Your task to perform on an android device: delete the emails in spam in the gmail app Image 0: 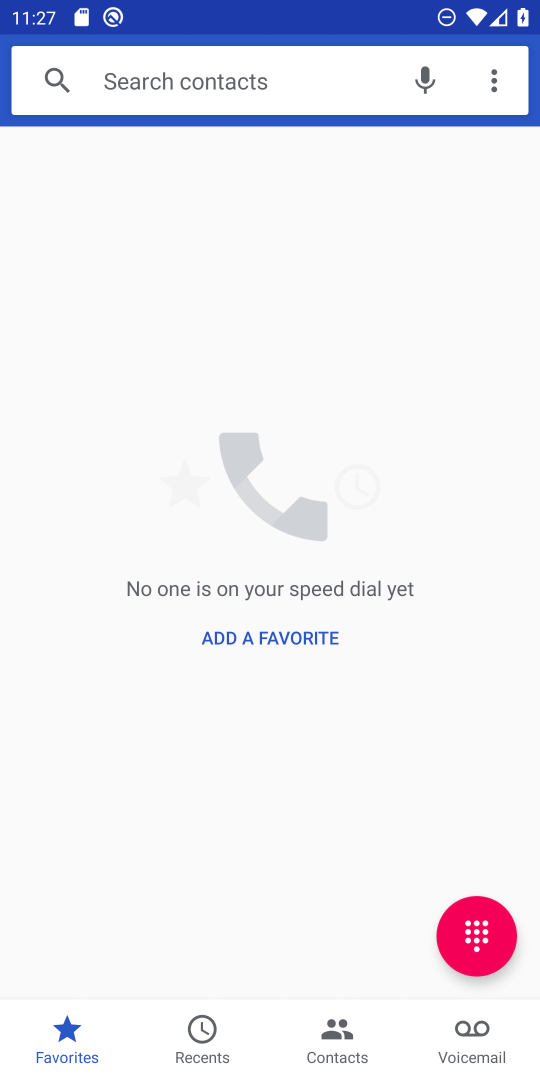
Step 0: press home button
Your task to perform on an android device: delete the emails in spam in the gmail app Image 1: 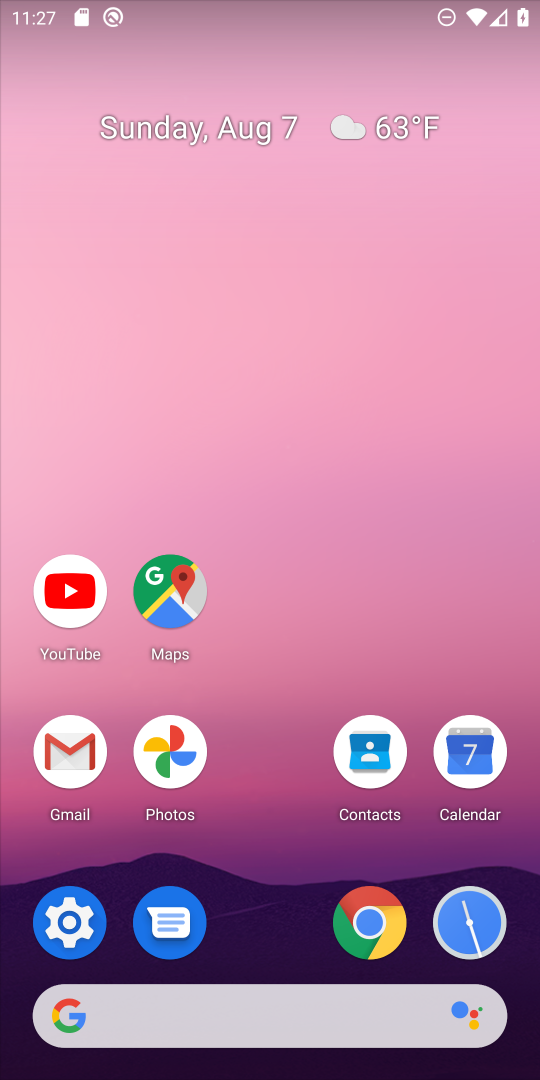
Step 1: click (68, 748)
Your task to perform on an android device: delete the emails in spam in the gmail app Image 2: 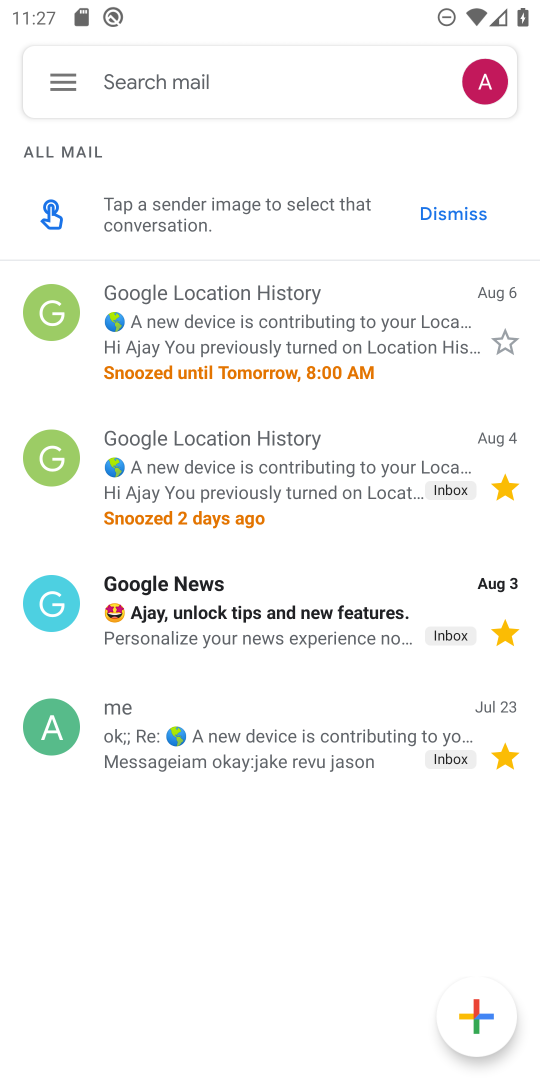
Step 2: click (62, 73)
Your task to perform on an android device: delete the emails in spam in the gmail app Image 3: 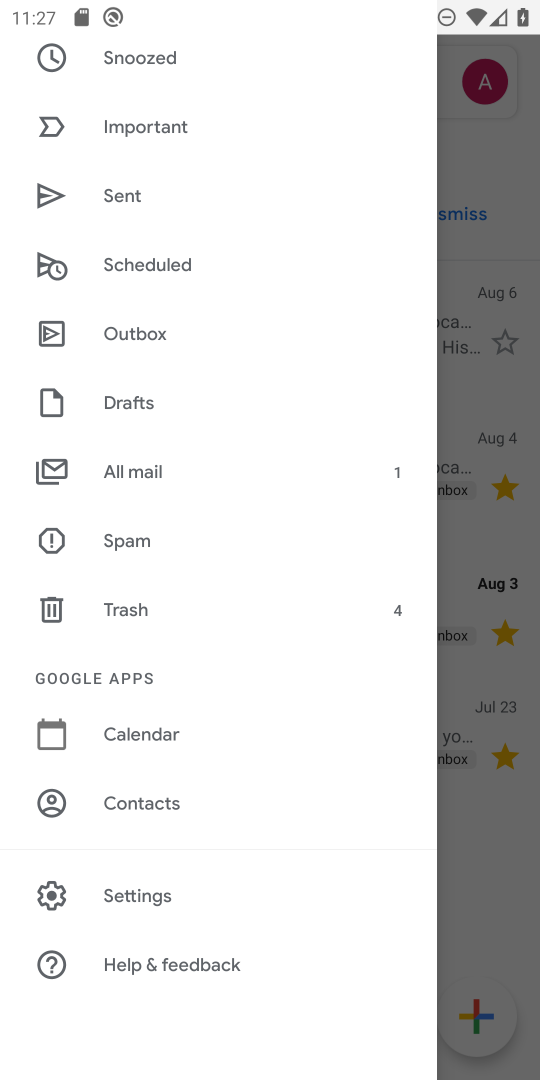
Step 3: click (125, 544)
Your task to perform on an android device: delete the emails in spam in the gmail app Image 4: 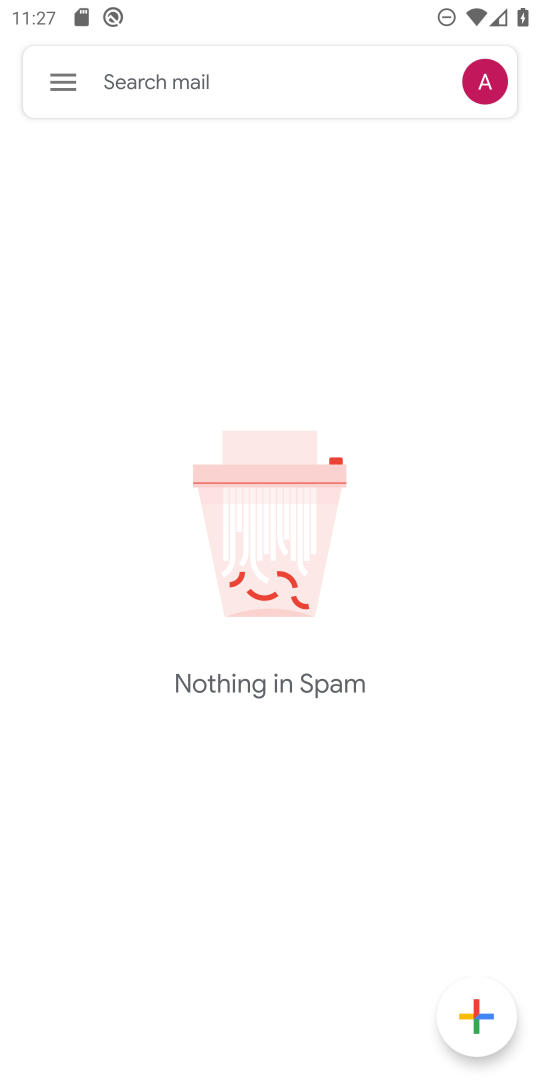
Step 4: task complete